Your task to perform on an android device: turn off notifications in google photos Image 0: 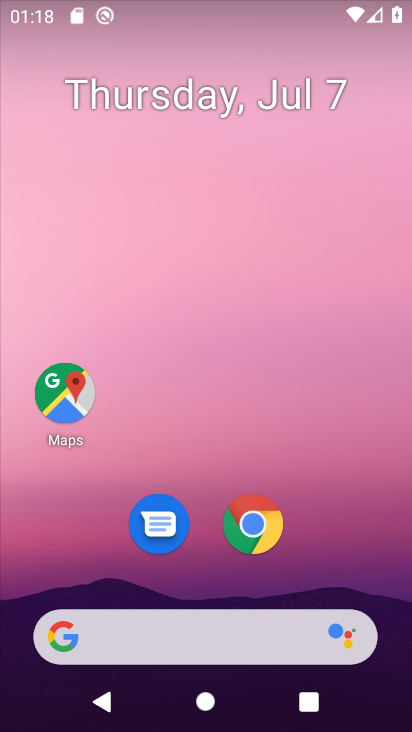
Step 0: drag from (326, 523) to (300, 28)
Your task to perform on an android device: turn off notifications in google photos Image 1: 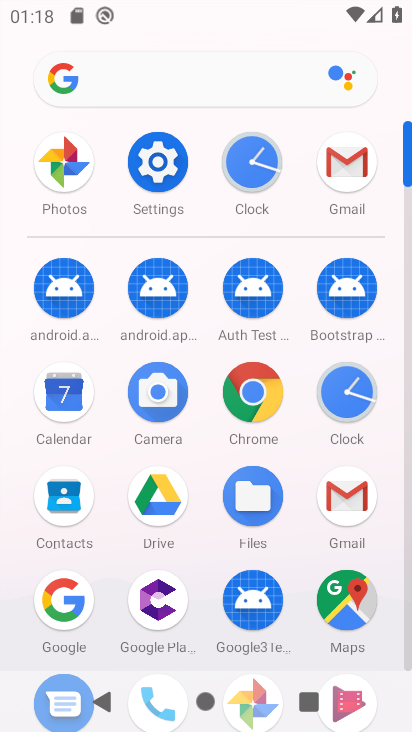
Step 1: click (63, 167)
Your task to perform on an android device: turn off notifications in google photos Image 2: 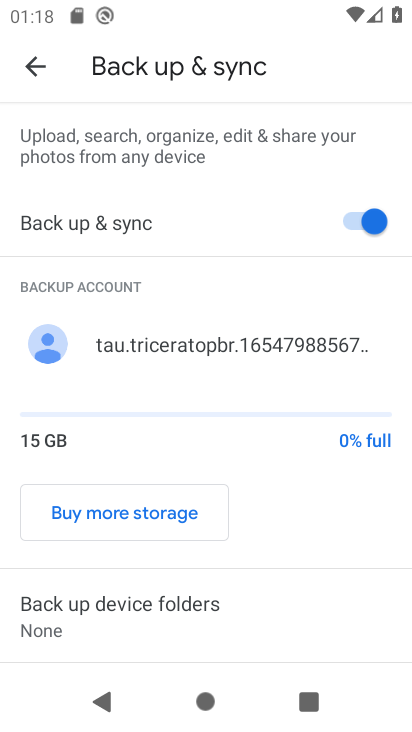
Step 2: click (27, 63)
Your task to perform on an android device: turn off notifications in google photos Image 3: 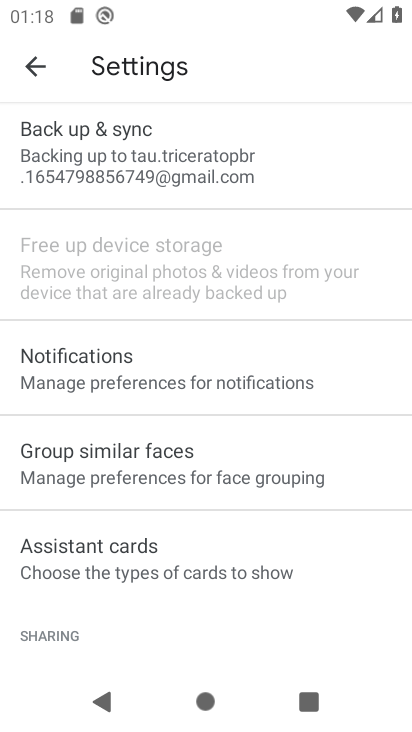
Step 3: click (136, 347)
Your task to perform on an android device: turn off notifications in google photos Image 4: 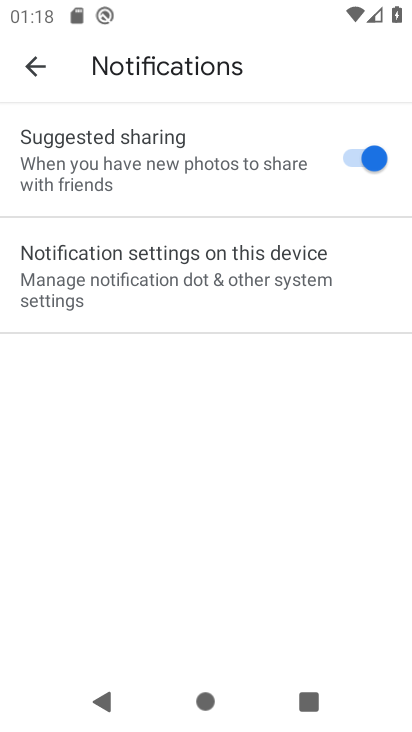
Step 4: click (351, 154)
Your task to perform on an android device: turn off notifications in google photos Image 5: 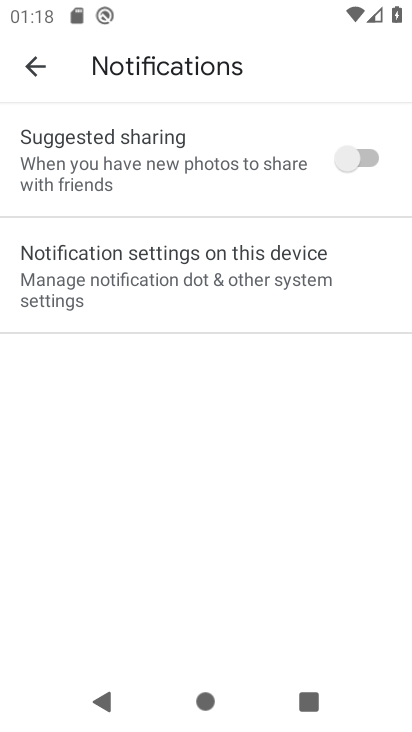
Step 5: task complete